Your task to perform on an android device: Search for vegetarian restaurants on Maps Image 0: 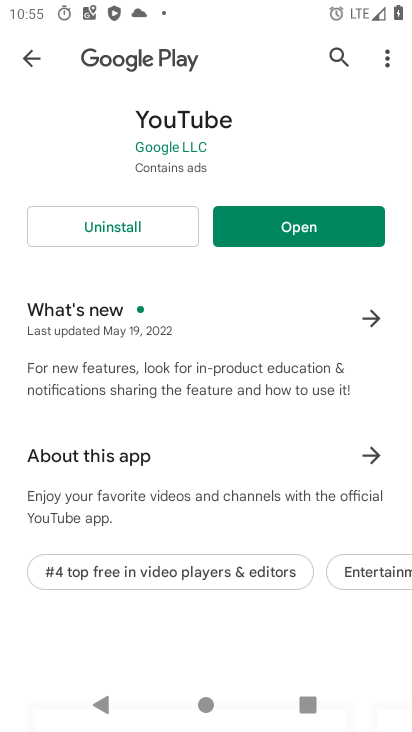
Step 0: drag from (293, 501) to (249, 156)
Your task to perform on an android device: Search for vegetarian restaurants on Maps Image 1: 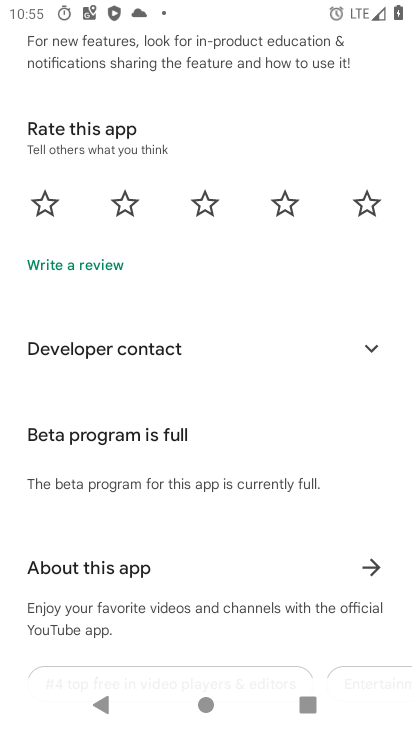
Step 1: press home button
Your task to perform on an android device: Search for vegetarian restaurants on Maps Image 2: 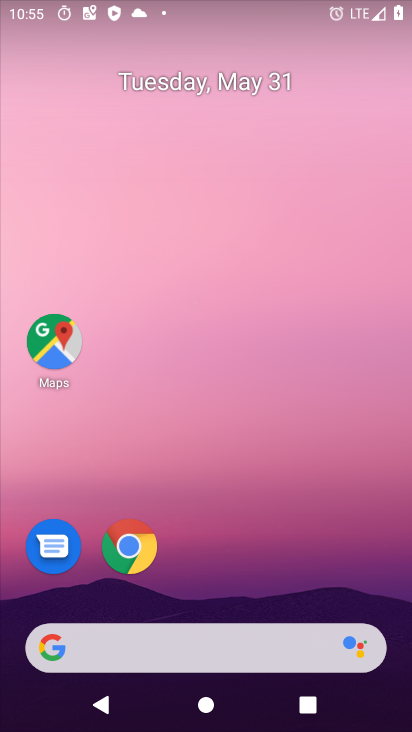
Step 2: click (48, 368)
Your task to perform on an android device: Search for vegetarian restaurants on Maps Image 3: 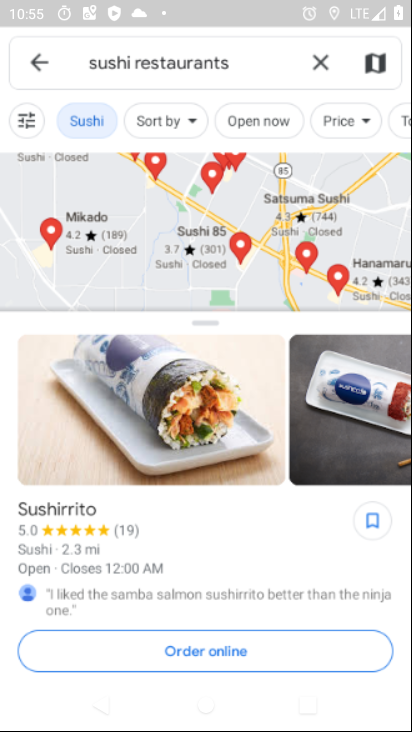
Step 3: click (328, 41)
Your task to perform on an android device: Search for vegetarian restaurants on Maps Image 4: 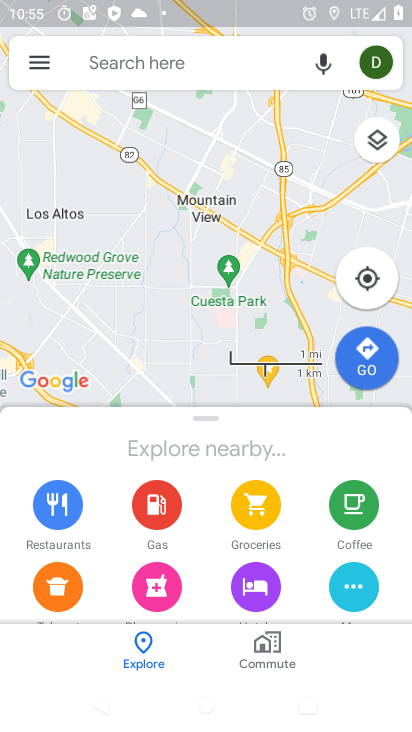
Step 4: click (259, 68)
Your task to perform on an android device: Search for vegetarian restaurants on Maps Image 5: 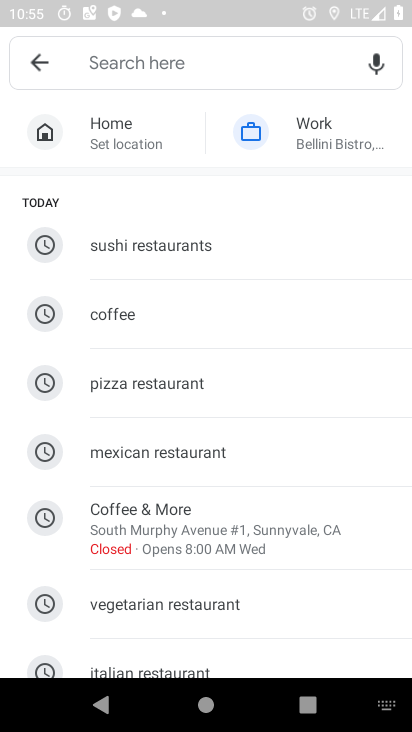
Step 5: click (194, 608)
Your task to perform on an android device: Search for vegetarian restaurants on Maps Image 6: 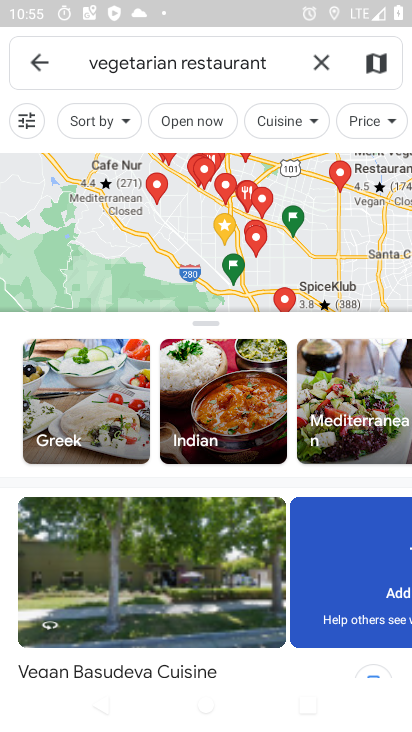
Step 6: task complete